Your task to perform on an android device: set an alarm Image 0: 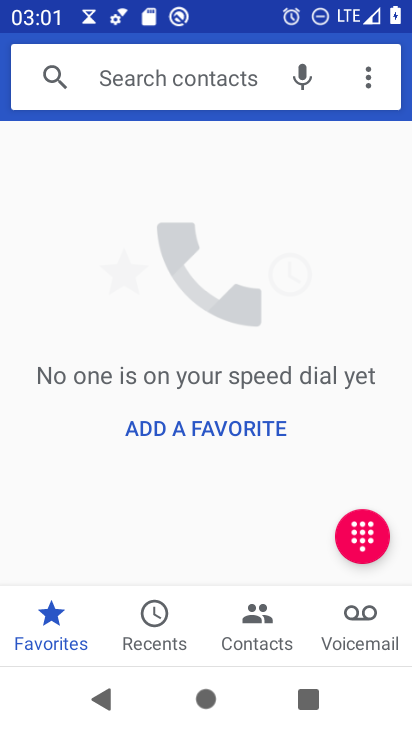
Step 0: press home button
Your task to perform on an android device: set an alarm Image 1: 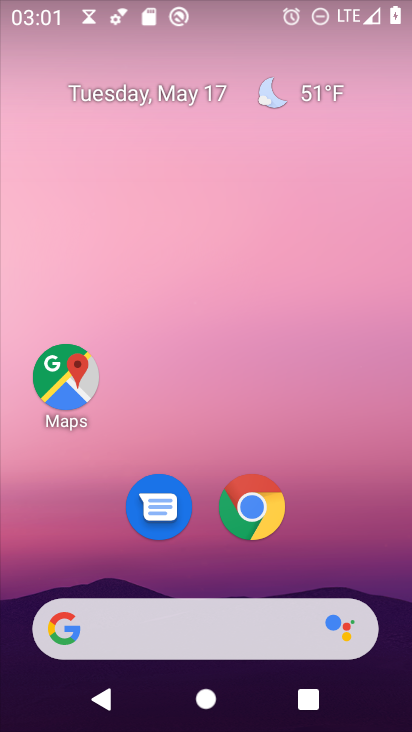
Step 1: drag from (207, 549) to (273, 12)
Your task to perform on an android device: set an alarm Image 2: 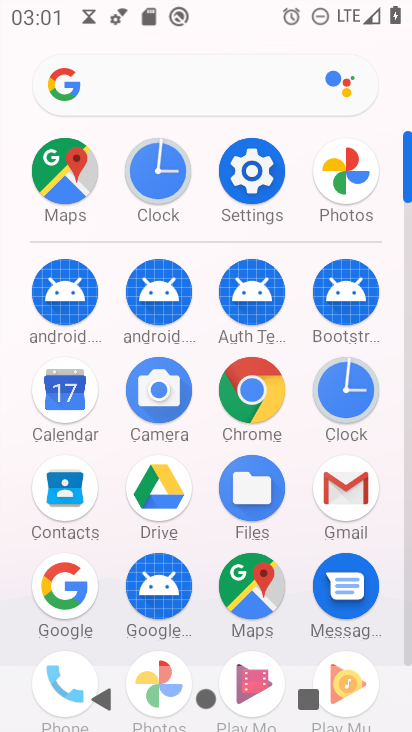
Step 2: click (340, 388)
Your task to perform on an android device: set an alarm Image 3: 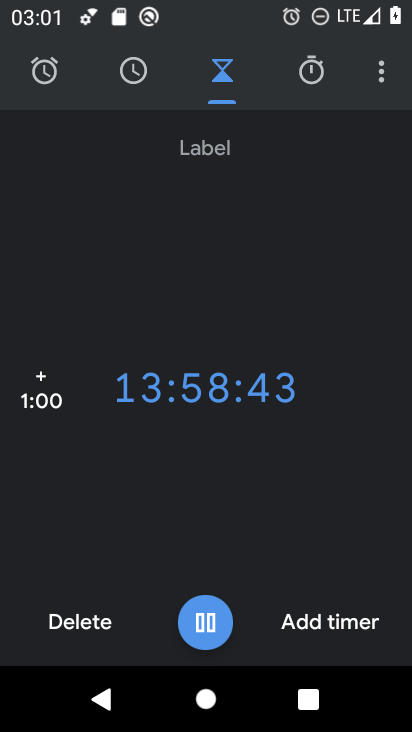
Step 3: click (67, 96)
Your task to perform on an android device: set an alarm Image 4: 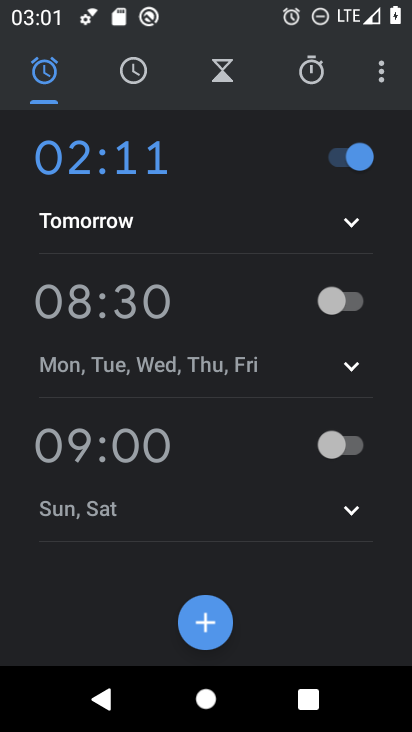
Step 4: click (201, 632)
Your task to perform on an android device: set an alarm Image 5: 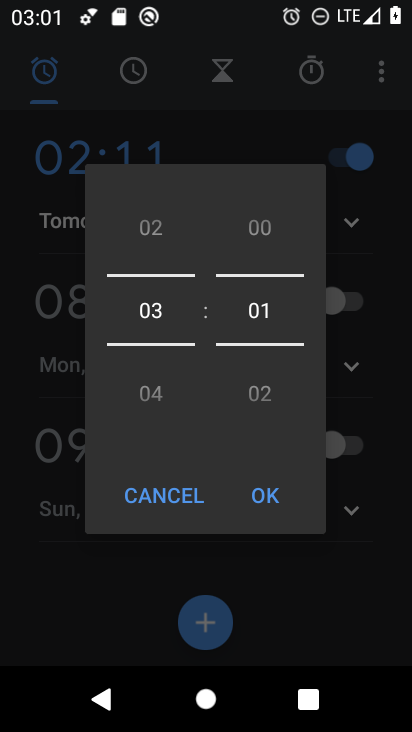
Step 5: click (259, 486)
Your task to perform on an android device: set an alarm Image 6: 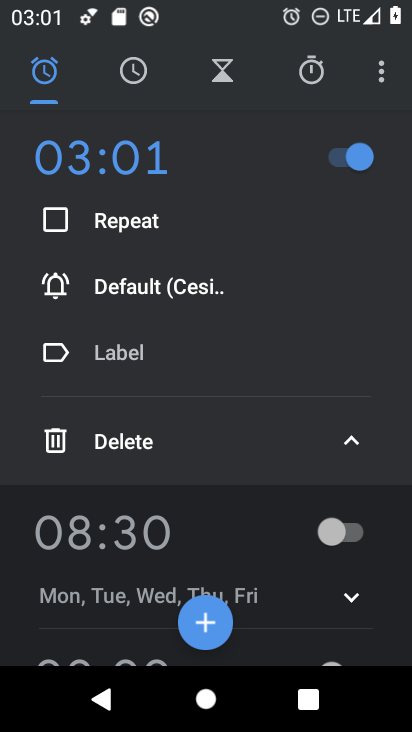
Step 6: click (352, 439)
Your task to perform on an android device: set an alarm Image 7: 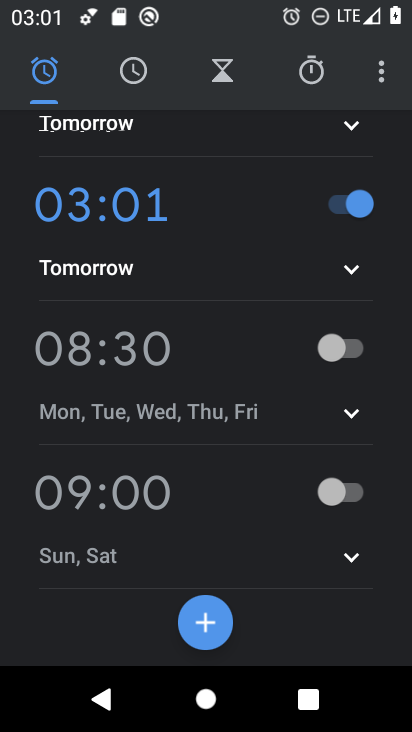
Step 7: task complete